Your task to perform on an android device: Search for Mexican restaurants on Maps Image 0: 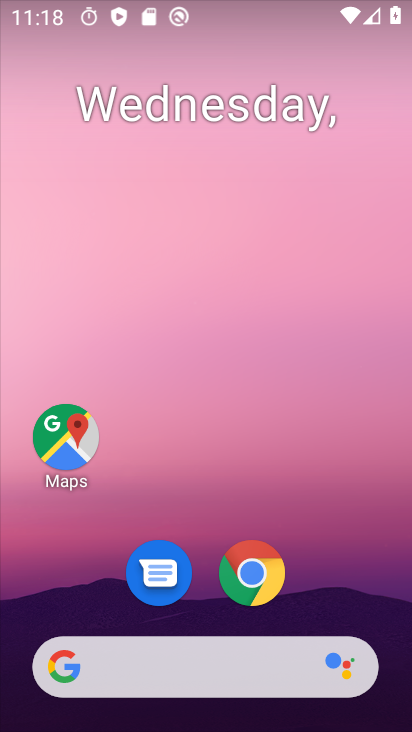
Step 0: click (66, 440)
Your task to perform on an android device: Search for Mexican restaurants on Maps Image 1: 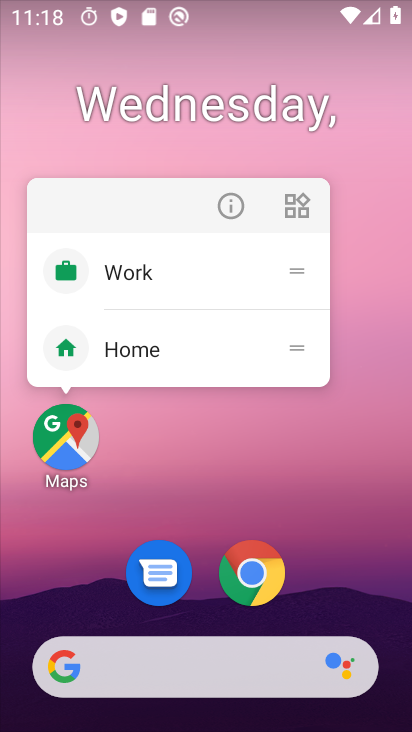
Step 1: click (66, 440)
Your task to perform on an android device: Search for Mexican restaurants on Maps Image 2: 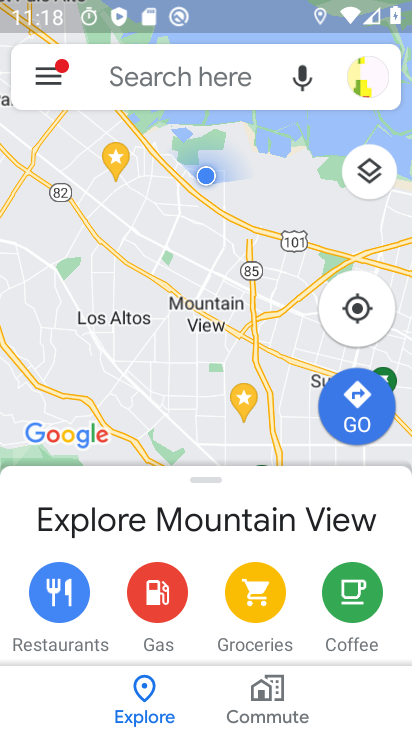
Step 2: click (37, 73)
Your task to perform on an android device: Search for Mexican restaurants on Maps Image 3: 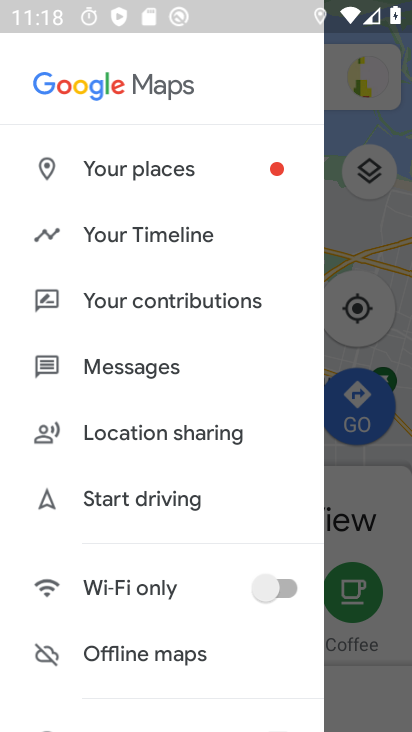
Step 3: press back button
Your task to perform on an android device: Search for Mexican restaurants on Maps Image 4: 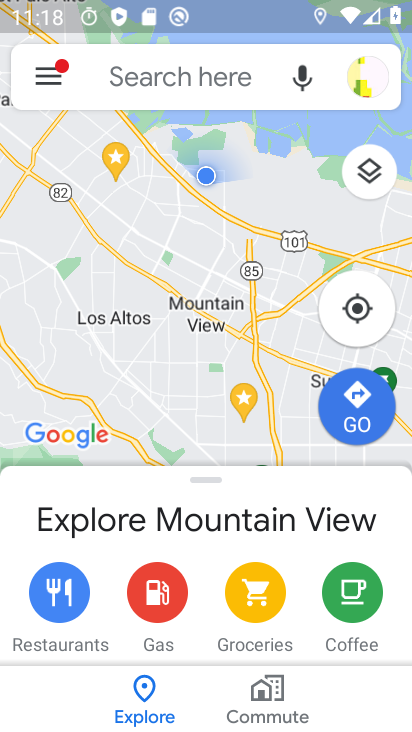
Step 4: click (120, 78)
Your task to perform on an android device: Search for Mexican restaurants on Maps Image 5: 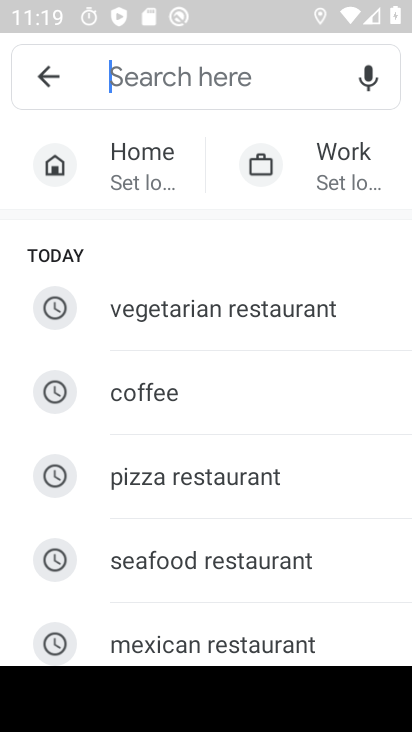
Step 5: type "Mexican restaurants"
Your task to perform on an android device: Search for Mexican restaurants on Maps Image 6: 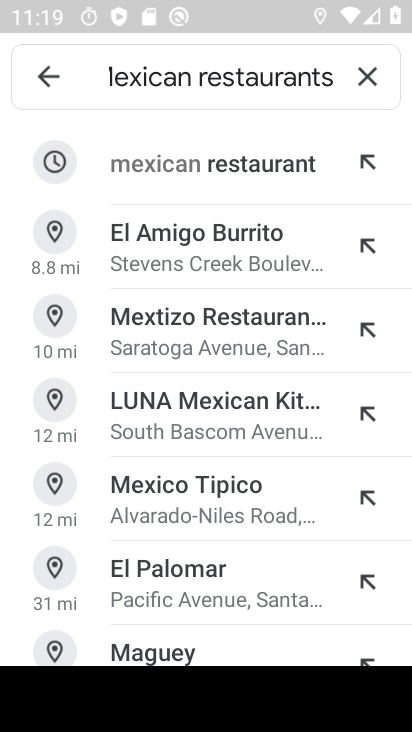
Step 6: click (183, 156)
Your task to perform on an android device: Search for Mexican restaurants on Maps Image 7: 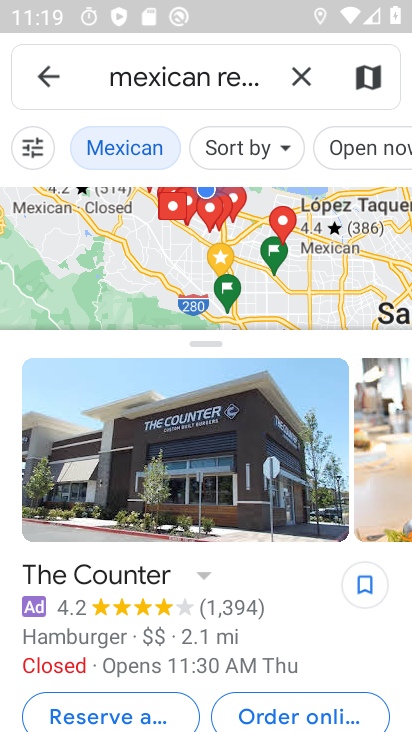
Step 7: task complete